Your task to perform on an android device: Search for Mexican restaurants on Maps Image 0: 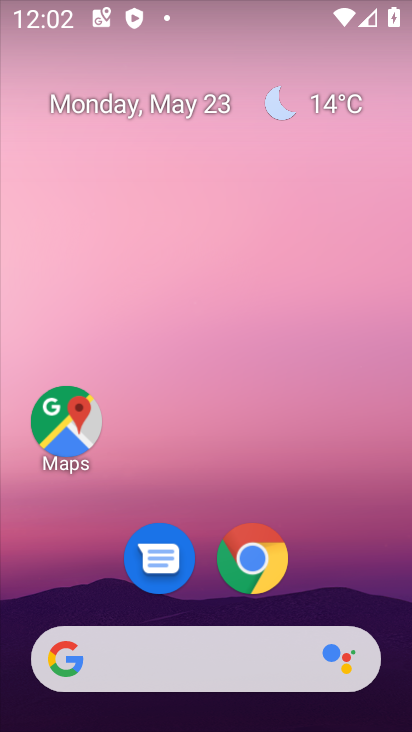
Step 0: click (65, 423)
Your task to perform on an android device: Search for Mexican restaurants on Maps Image 1: 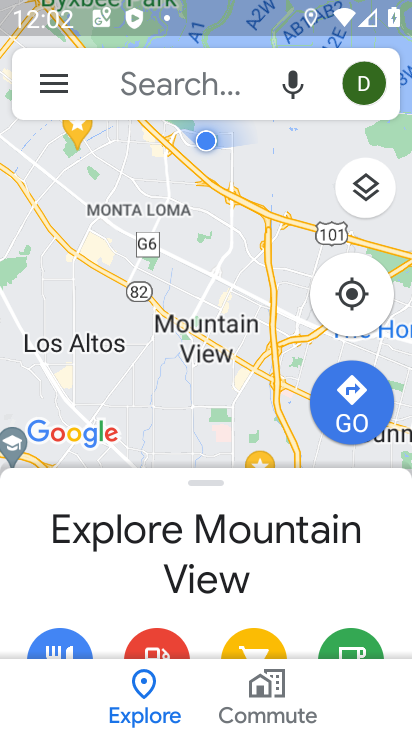
Step 1: click (128, 86)
Your task to perform on an android device: Search for Mexican restaurants on Maps Image 2: 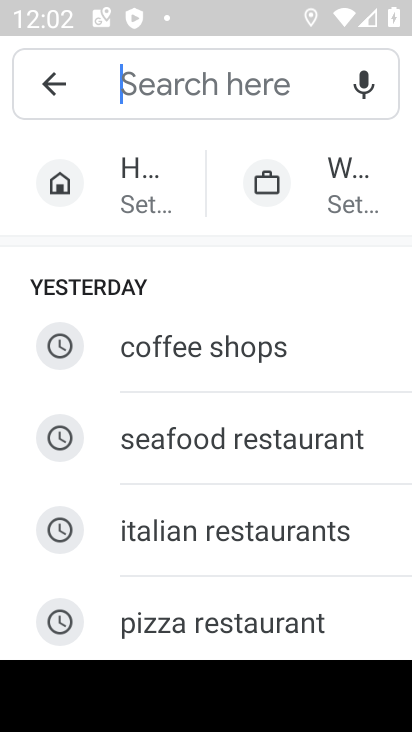
Step 2: type "mexican restaurant"
Your task to perform on an android device: Search for Mexican restaurants on Maps Image 3: 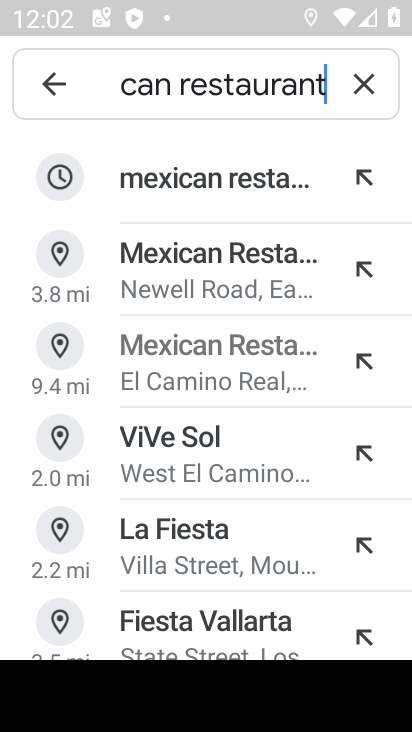
Step 3: click (177, 181)
Your task to perform on an android device: Search for Mexican restaurants on Maps Image 4: 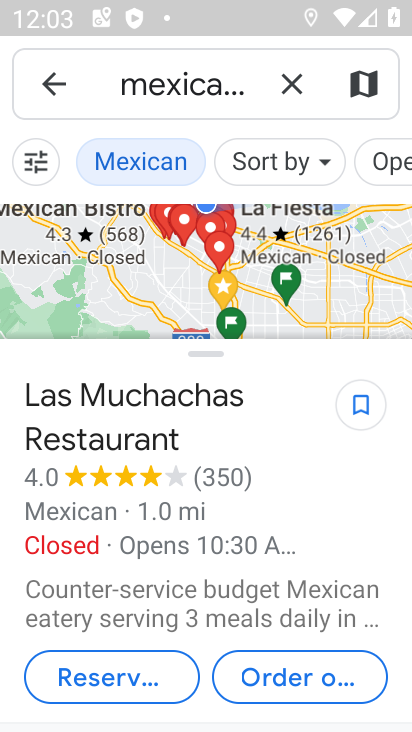
Step 4: task complete